Your task to perform on an android device: choose inbox layout in the gmail app Image 0: 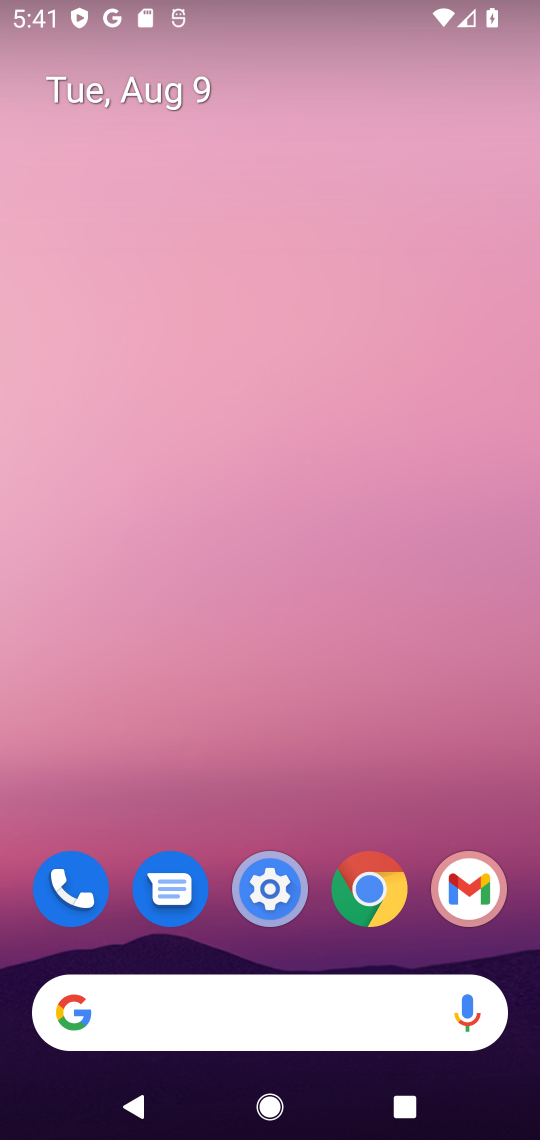
Step 0: click (492, 882)
Your task to perform on an android device: choose inbox layout in the gmail app Image 1: 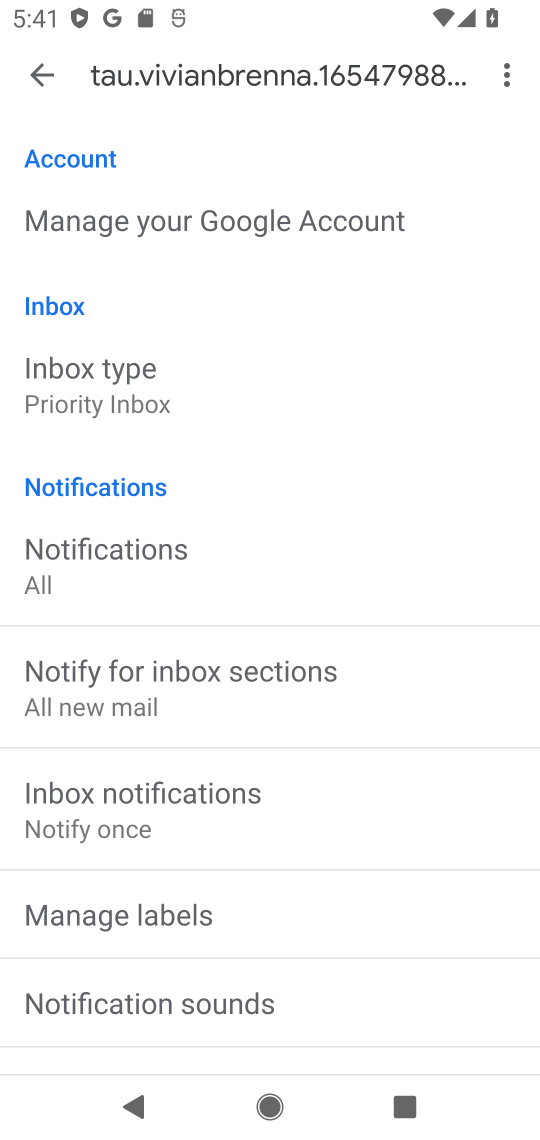
Step 1: click (148, 398)
Your task to perform on an android device: choose inbox layout in the gmail app Image 2: 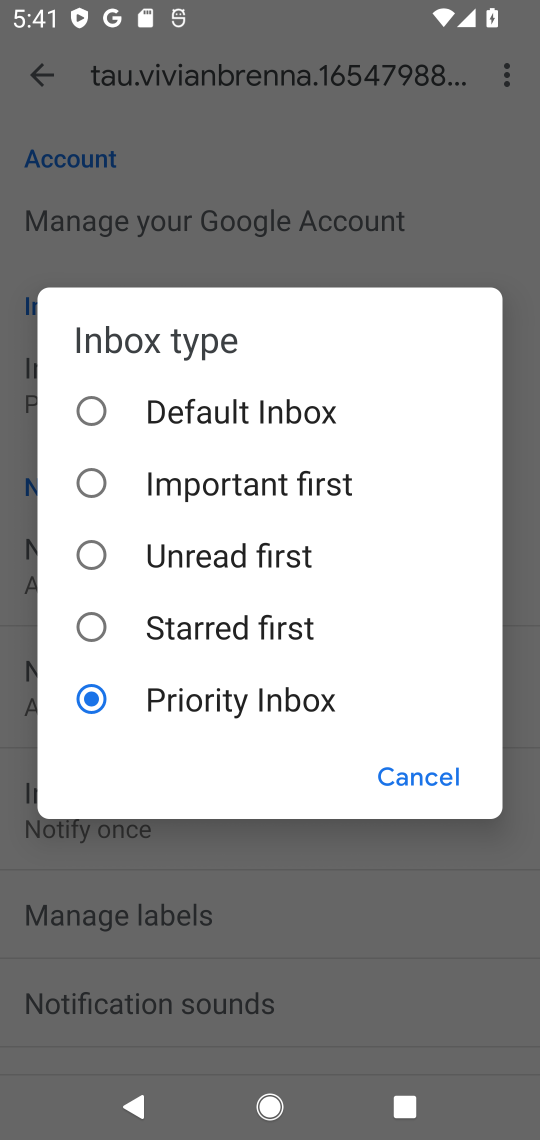
Step 2: click (218, 409)
Your task to perform on an android device: choose inbox layout in the gmail app Image 3: 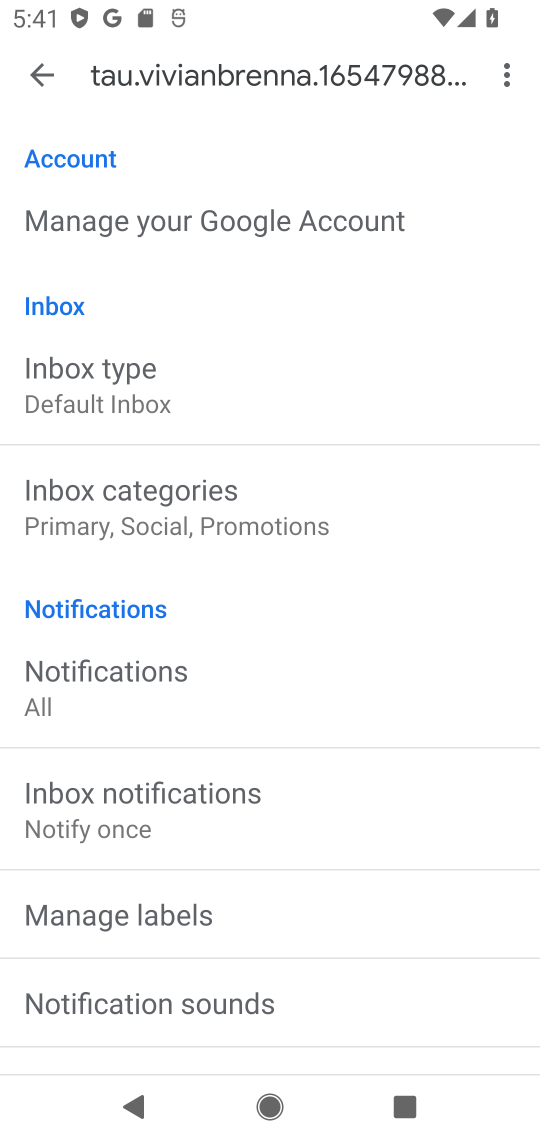
Step 3: task complete